Your task to perform on an android device: delete a single message in the gmail app Image 0: 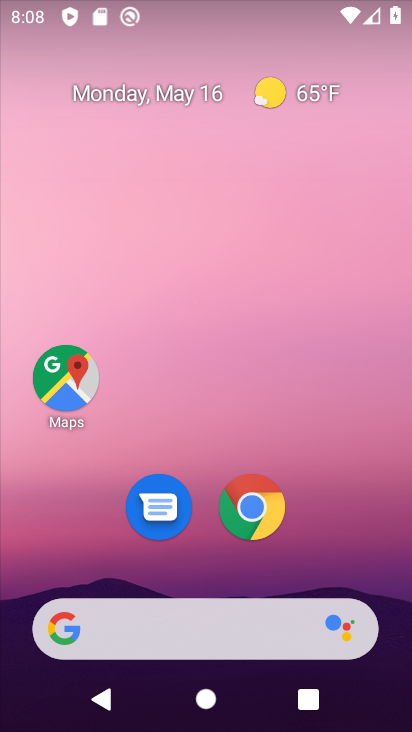
Step 0: drag from (171, 577) to (149, 24)
Your task to perform on an android device: delete a single message in the gmail app Image 1: 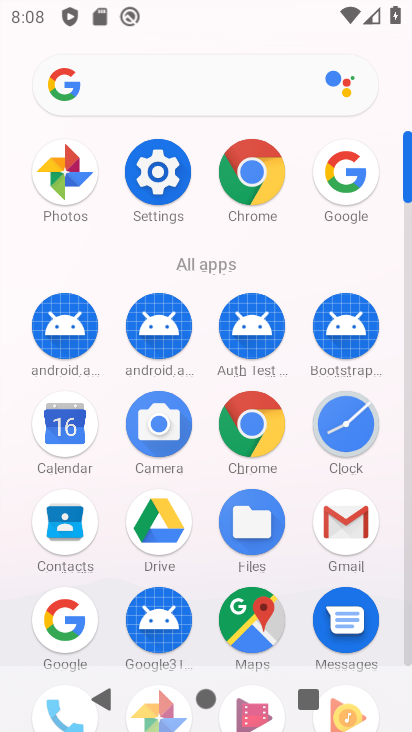
Step 1: click (347, 549)
Your task to perform on an android device: delete a single message in the gmail app Image 2: 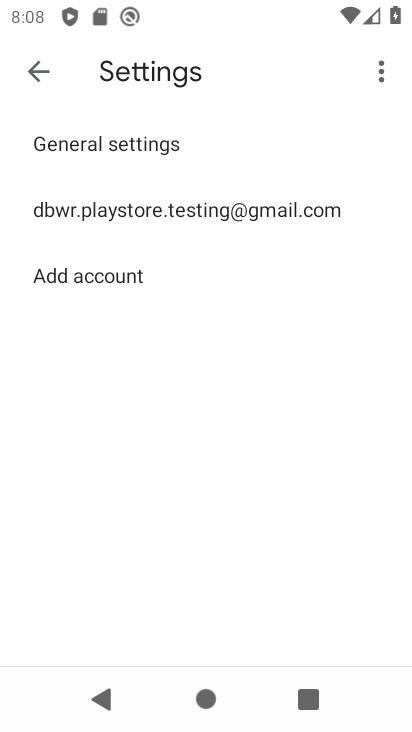
Step 2: click (30, 62)
Your task to perform on an android device: delete a single message in the gmail app Image 3: 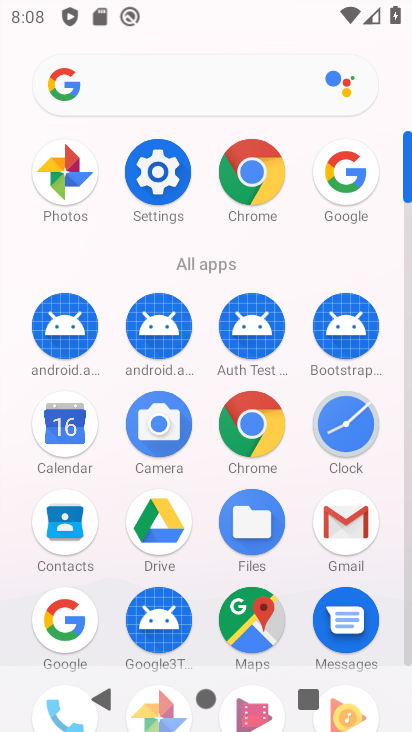
Step 3: click (339, 524)
Your task to perform on an android device: delete a single message in the gmail app Image 4: 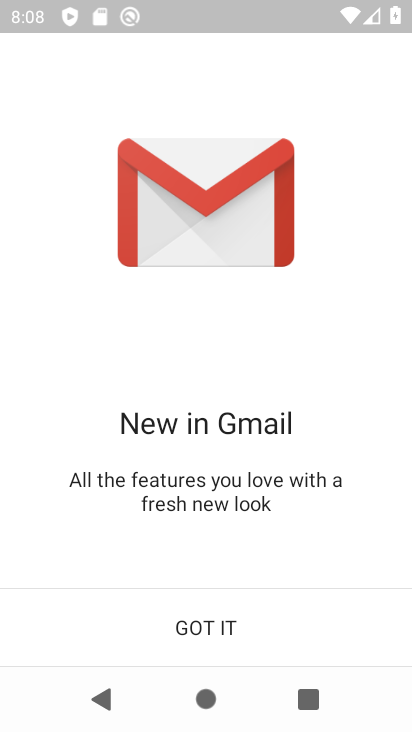
Step 4: click (252, 622)
Your task to perform on an android device: delete a single message in the gmail app Image 5: 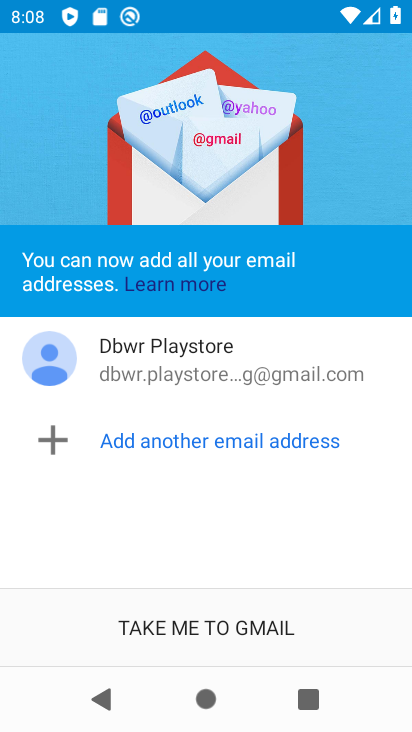
Step 5: click (251, 623)
Your task to perform on an android device: delete a single message in the gmail app Image 6: 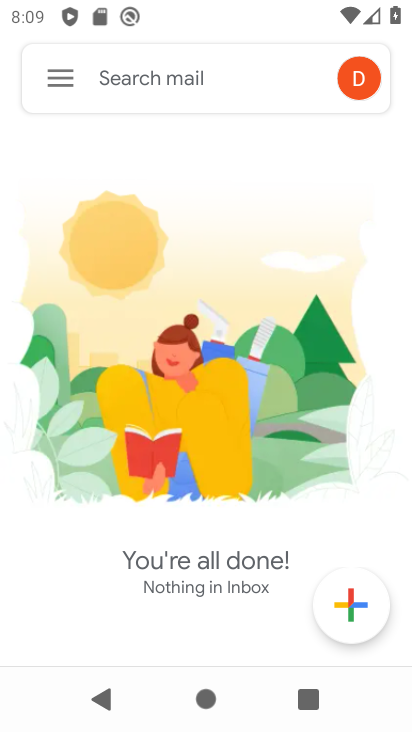
Step 6: task complete